Your task to perform on an android device: Show me the alarms in the clock app Image 0: 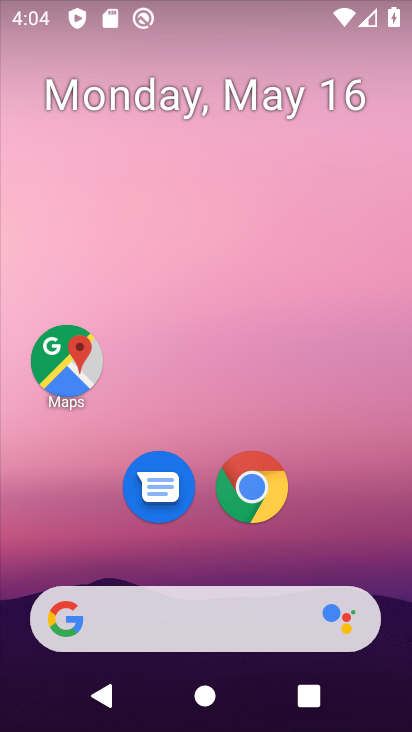
Step 0: drag from (394, 592) to (270, 75)
Your task to perform on an android device: Show me the alarms in the clock app Image 1: 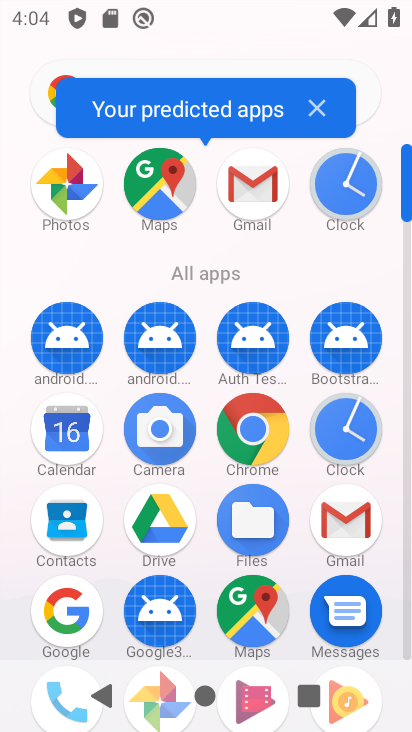
Step 1: click (348, 429)
Your task to perform on an android device: Show me the alarms in the clock app Image 2: 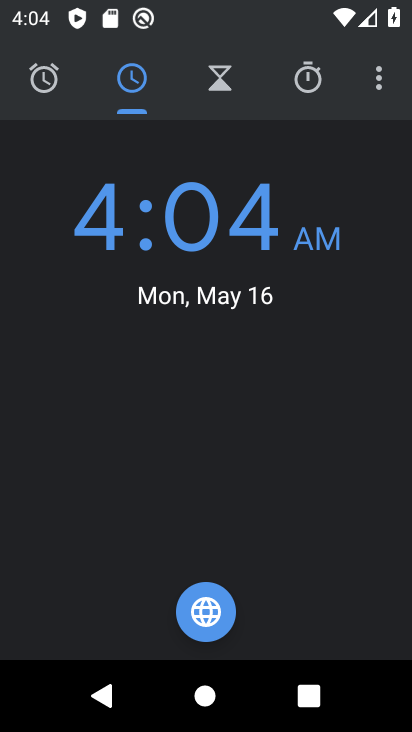
Step 2: click (379, 85)
Your task to perform on an android device: Show me the alarms in the clock app Image 3: 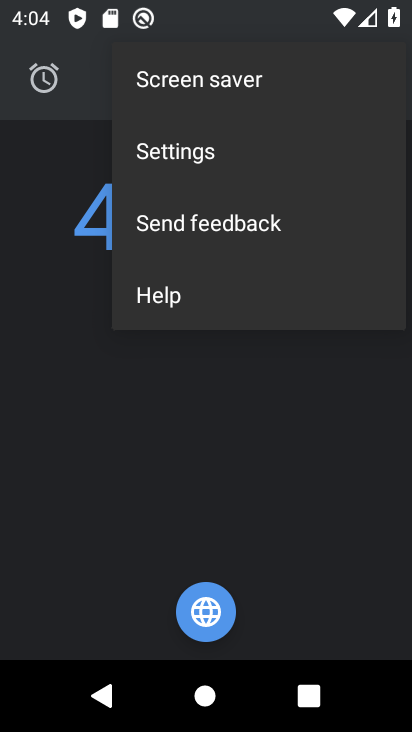
Step 3: click (36, 67)
Your task to perform on an android device: Show me the alarms in the clock app Image 4: 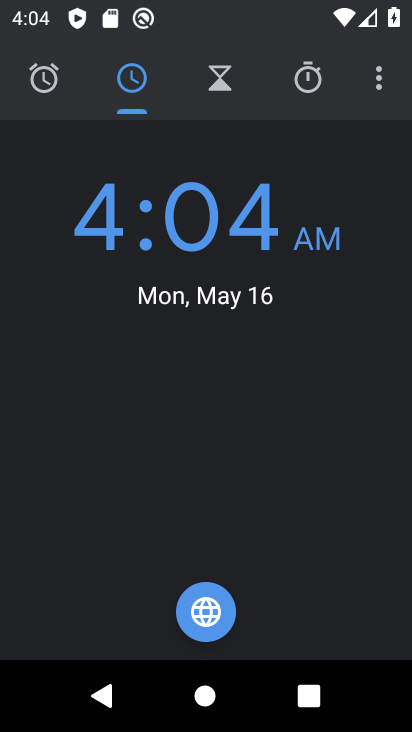
Step 4: click (40, 74)
Your task to perform on an android device: Show me the alarms in the clock app Image 5: 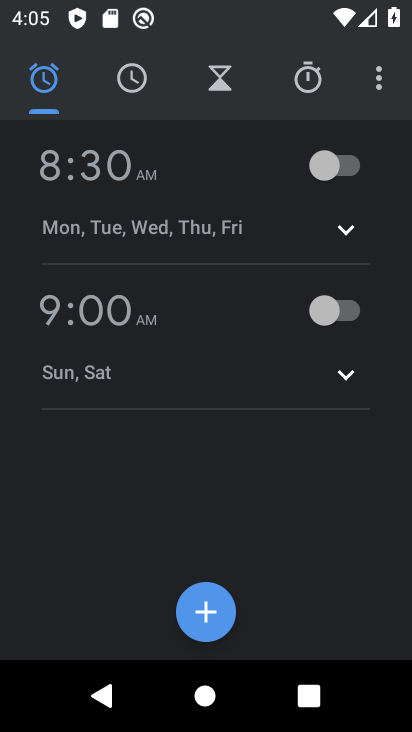
Step 5: task complete